Your task to perform on an android device: Go to Reddit.com Image 0: 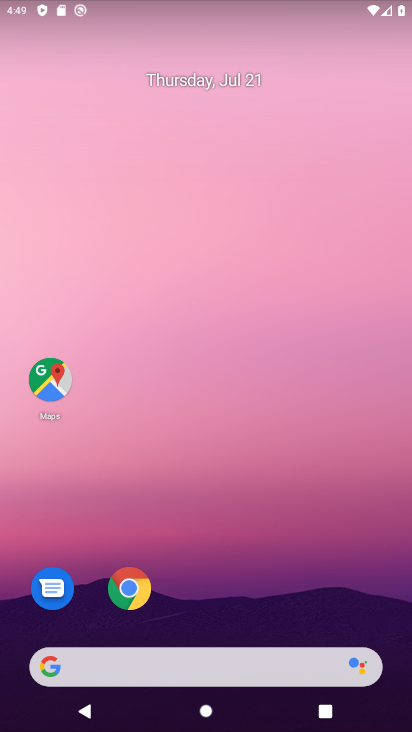
Step 0: click (183, 55)
Your task to perform on an android device: Go to Reddit.com Image 1: 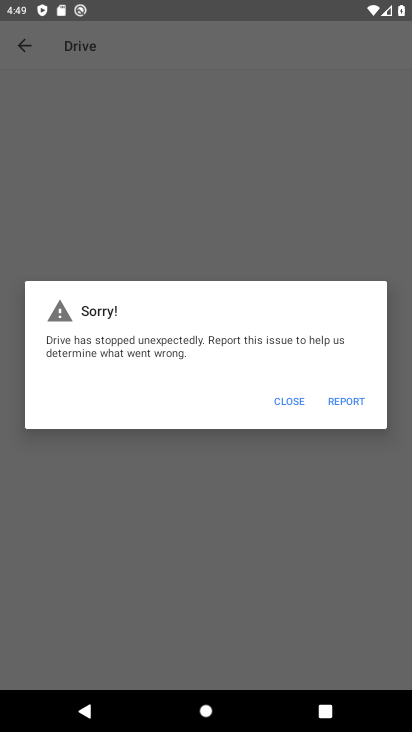
Step 1: press home button
Your task to perform on an android device: Go to Reddit.com Image 2: 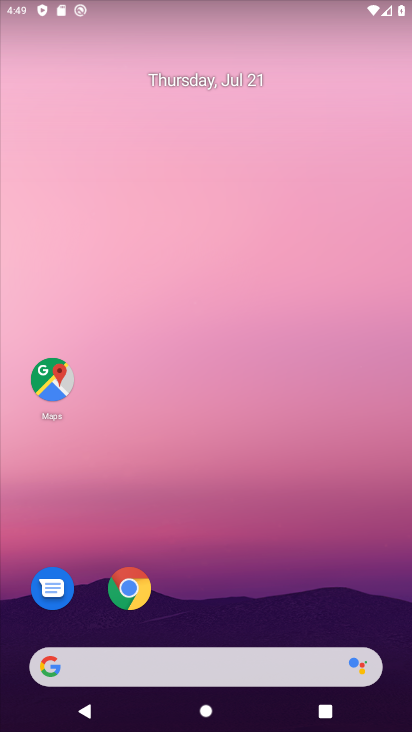
Step 2: click (117, 577)
Your task to perform on an android device: Go to Reddit.com Image 3: 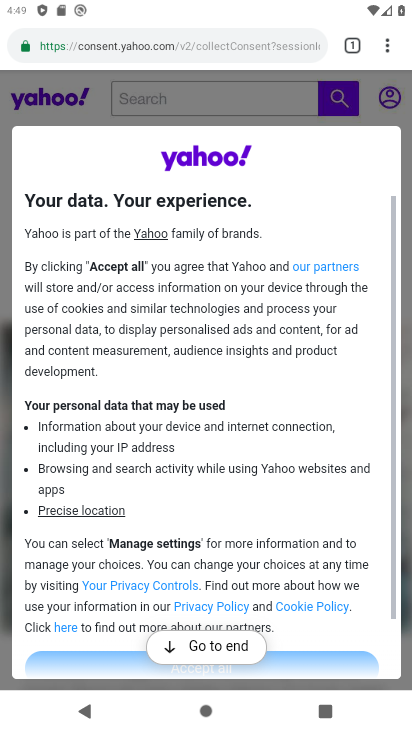
Step 3: click (157, 44)
Your task to perform on an android device: Go to Reddit.com Image 4: 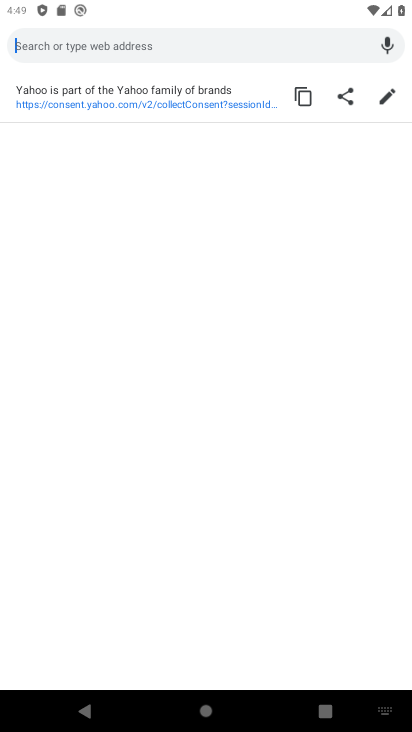
Step 4: type "reddit.com"
Your task to perform on an android device: Go to Reddit.com Image 5: 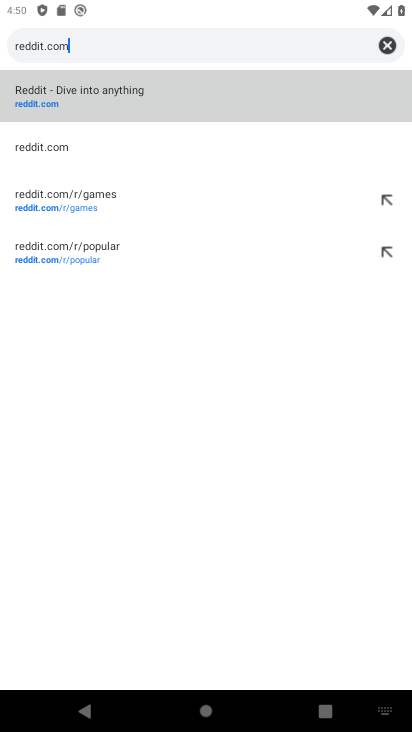
Step 5: click (300, 114)
Your task to perform on an android device: Go to Reddit.com Image 6: 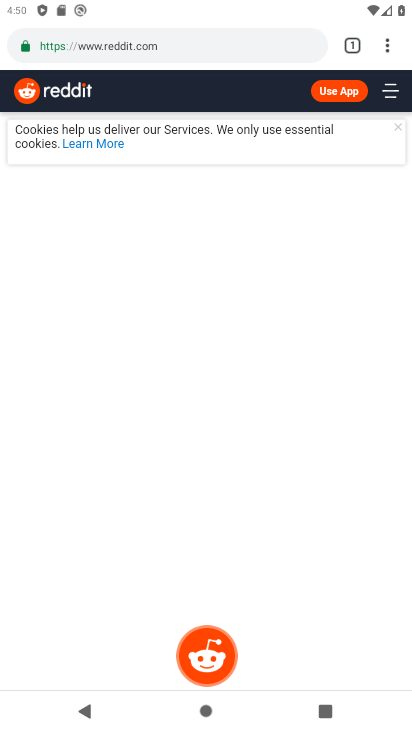
Step 6: task complete